Your task to perform on an android device: open the mobile data screen to see how much data has been used Image 0: 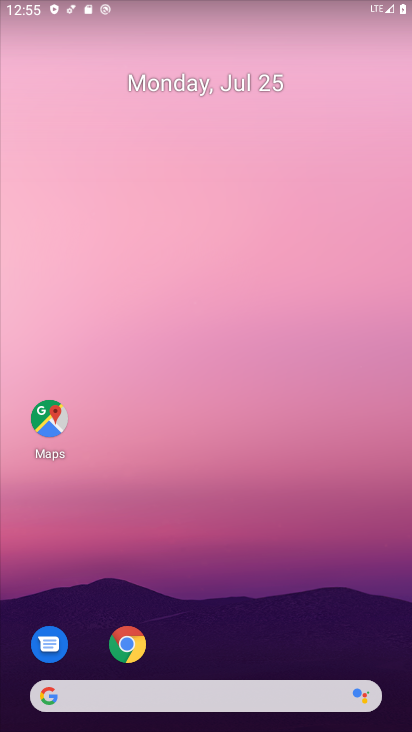
Step 0: drag from (237, 632) to (237, 126)
Your task to perform on an android device: open the mobile data screen to see how much data has been used Image 1: 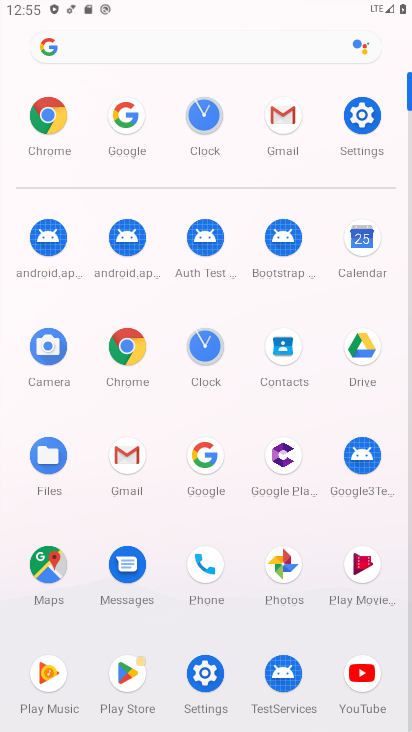
Step 1: click (364, 106)
Your task to perform on an android device: open the mobile data screen to see how much data has been used Image 2: 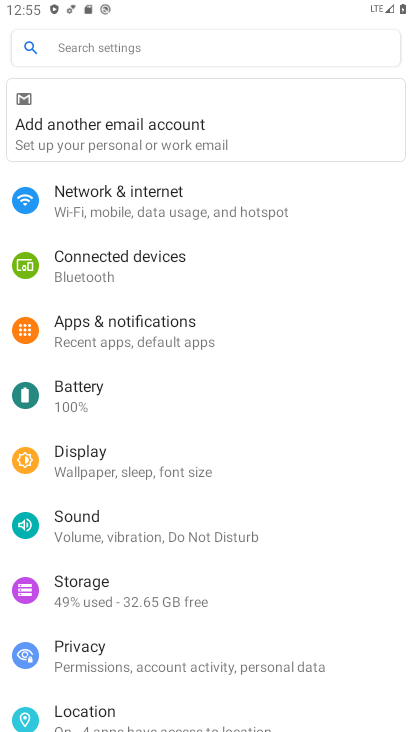
Step 2: click (143, 205)
Your task to perform on an android device: open the mobile data screen to see how much data has been used Image 3: 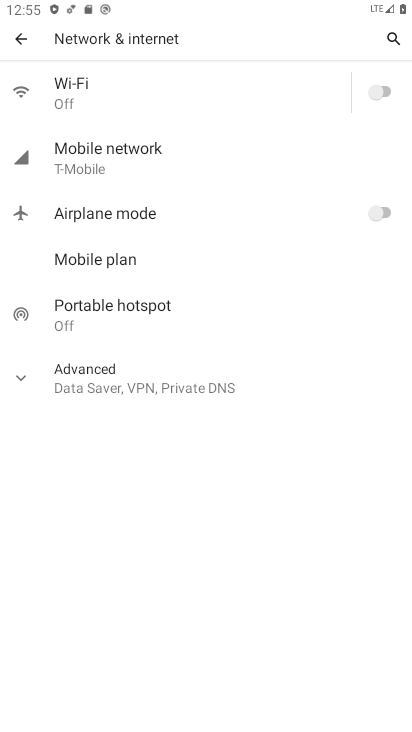
Step 3: click (79, 163)
Your task to perform on an android device: open the mobile data screen to see how much data has been used Image 4: 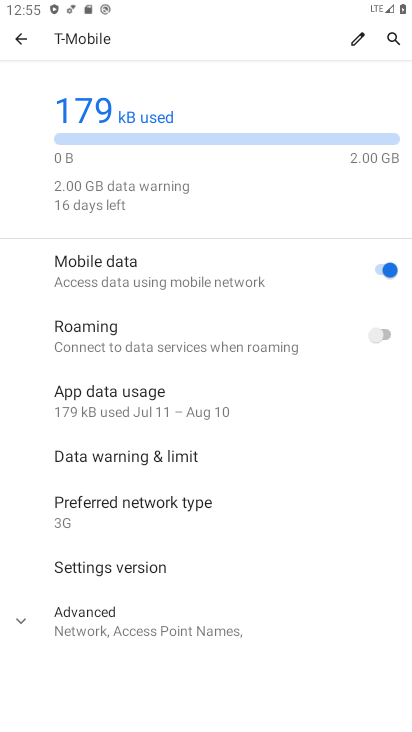
Step 4: click (125, 395)
Your task to perform on an android device: open the mobile data screen to see how much data has been used Image 5: 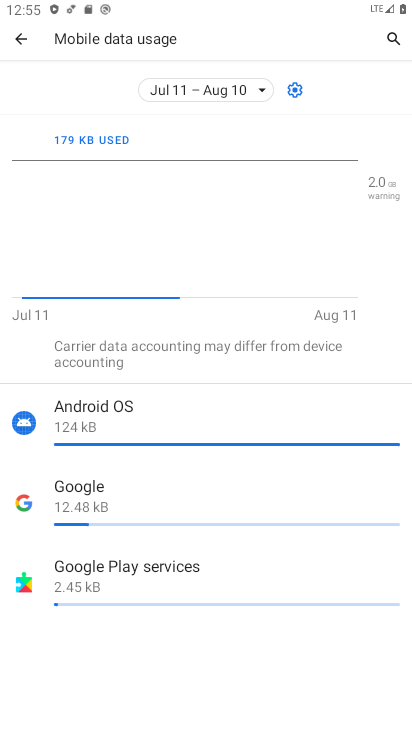
Step 5: task complete